Your task to perform on an android device: change notification settings in the gmail app Image 0: 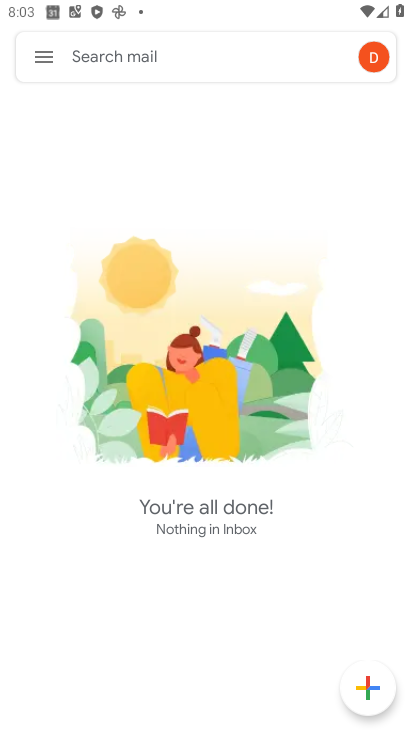
Step 0: press home button
Your task to perform on an android device: change notification settings in the gmail app Image 1: 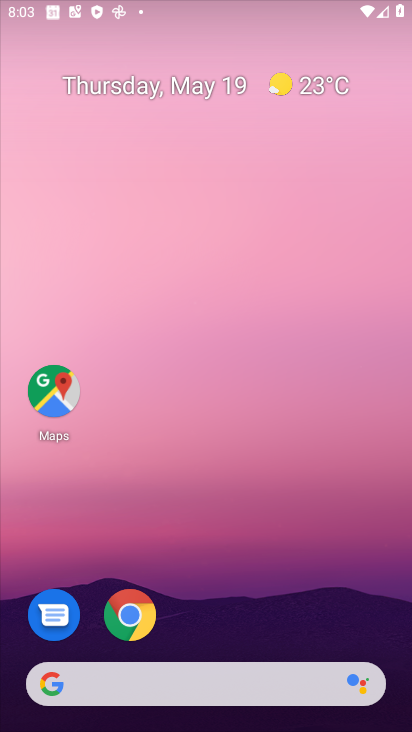
Step 1: drag from (349, 646) to (242, 38)
Your task to perform on an android device: change notification settings in the gmail app Image 2: 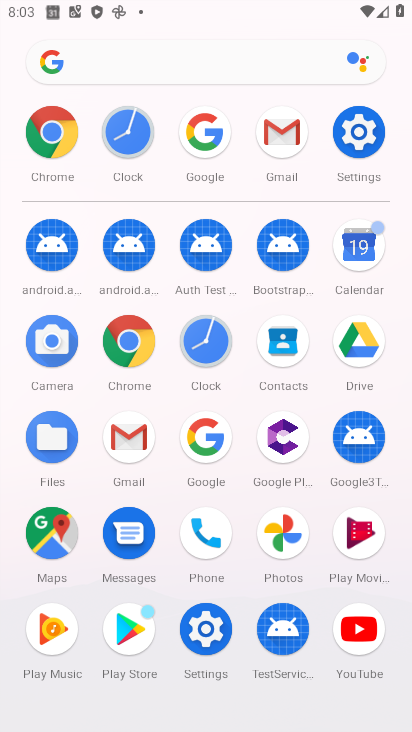
Step 2: click (119, 436)
Your task to perform on an android device: change notification settings in the gmail app Image 3: 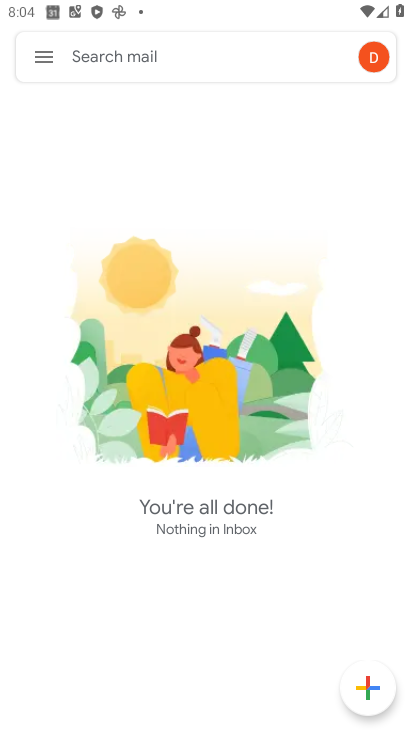
Step 3: click (34, 51)
Your task to perform on an android device: change notification settings in the gmail app Image 4: 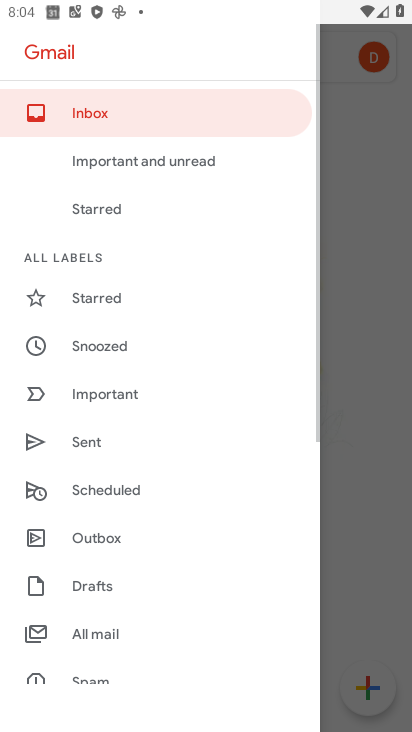
Step 4: drag from (114, 639) to (149, 187)
Your task to perform on an android device: change notification settings in the gmail app Image 5: 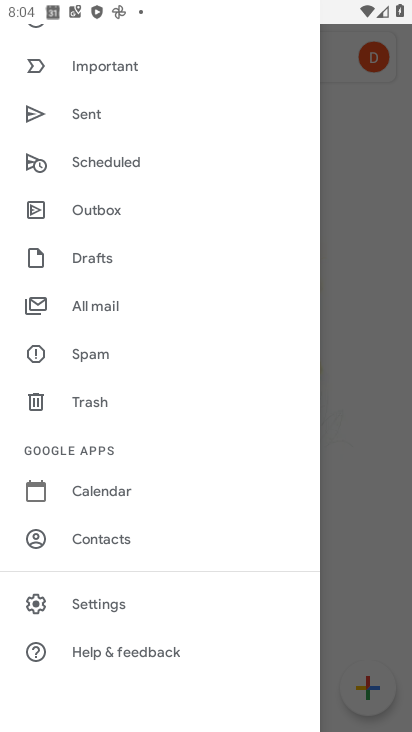
Step 5: click (124, 615)
Your task to perform on an android device: change notification settings in the gmail app Image 6: 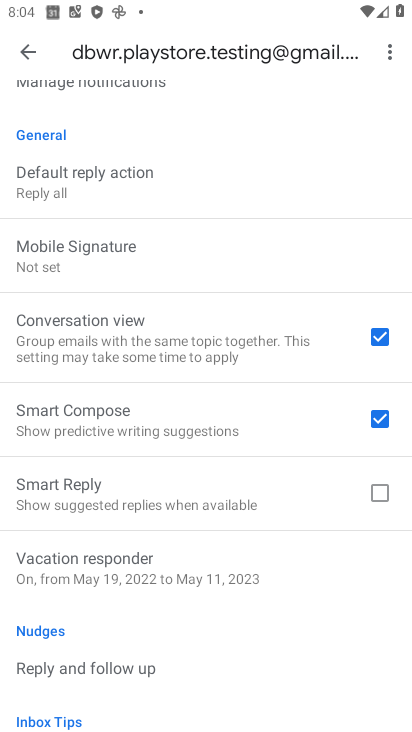
Step 6: drag from (200, 219) to (270, 648)
Your task to perform on an android device: change notification settings in the gmail app Image 7: 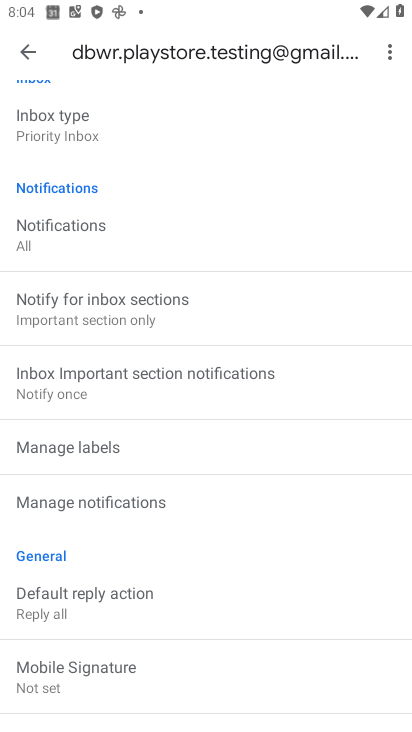
Step 7: click (145, 251)
Your task to perform on an android device: change notification settings in the gmail app Image 8: 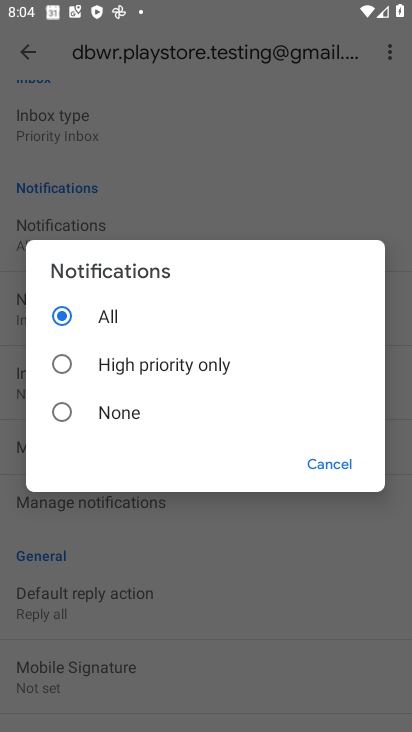
Step 8: click (66, 415)
Your task to perform on an android device: change notification settings in the gmail app Image 9: 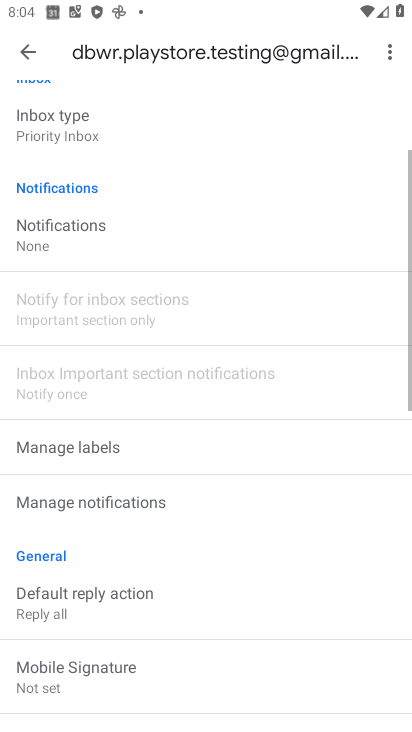
Step 9: task complete